Your task to perform on an android device: find snoozed emails in the gmail app Image 0: 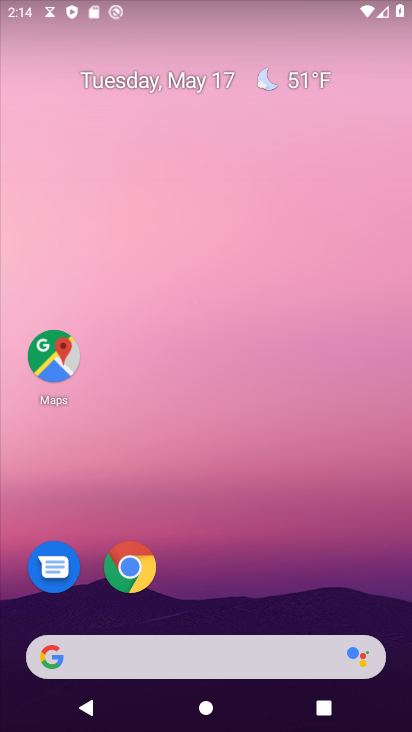
Step 0: drag from (182, 647) to (164, 163)
Your task to perform on an android device: find snoozed emails in the gmail app Image 1: 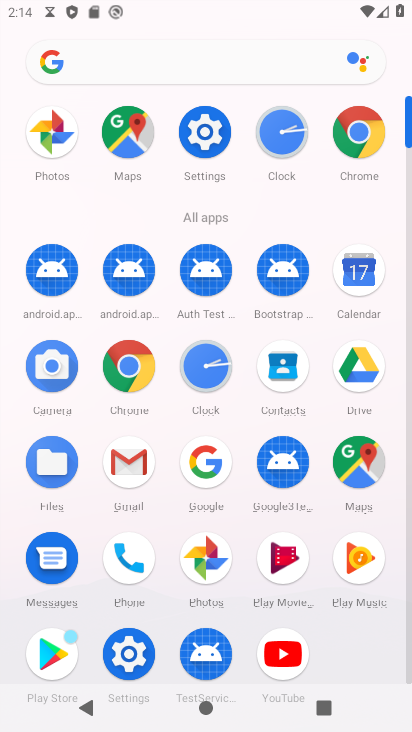
Step 1: click (119, 458)
Your task to perform on an android device: find snoozed emails in the gmail app Image 2: 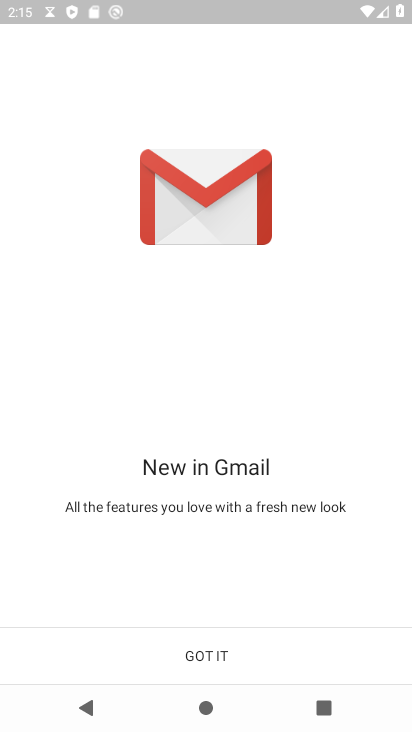
Step 2: click (204, 653)
Your task to perform on an android device: find snoozed emails in the gmail app Image 3: 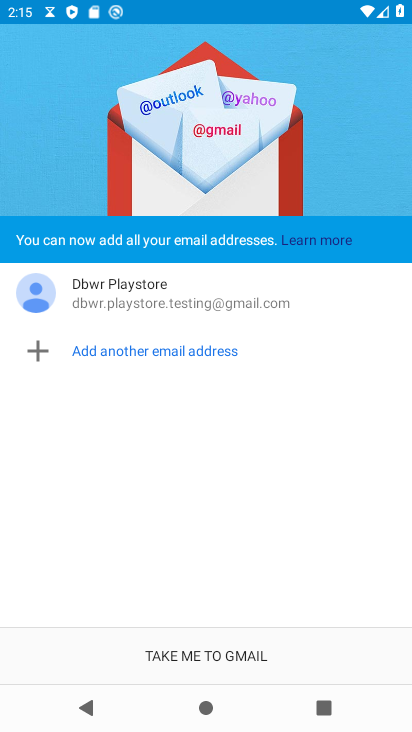
Step 3: click (204, 653)
Your task to perform on an android device: find snoozed emails in the gmail app Image 4: 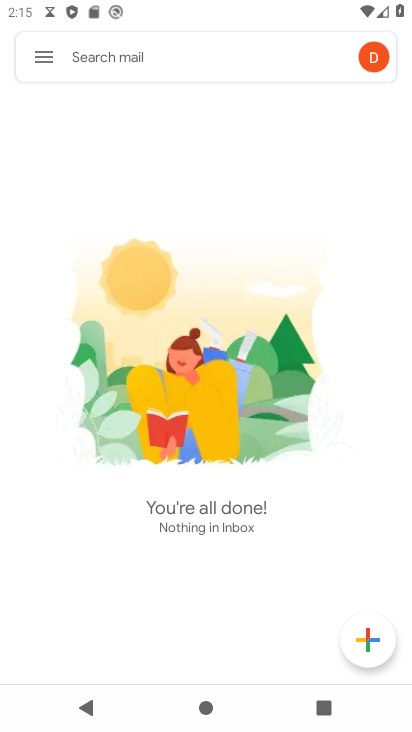
Step 4: click (44, 70)
Your task to perform on an android device: find snoozed emails in the gmail app Image 5: 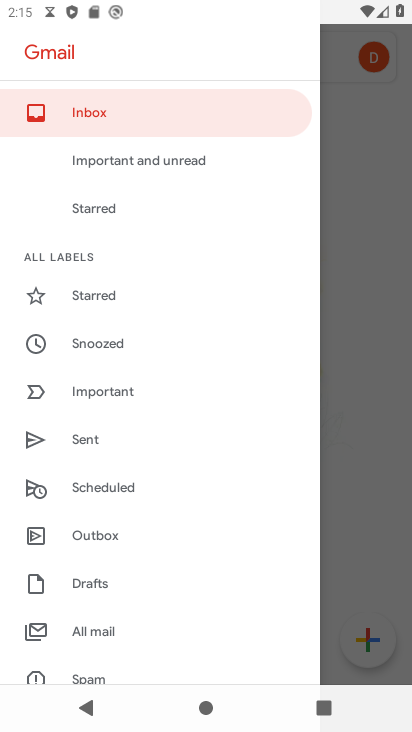
Step 5: click (103, 344)
Your task to perform on an android device: find snoozed emails in the gmail app Image 6: 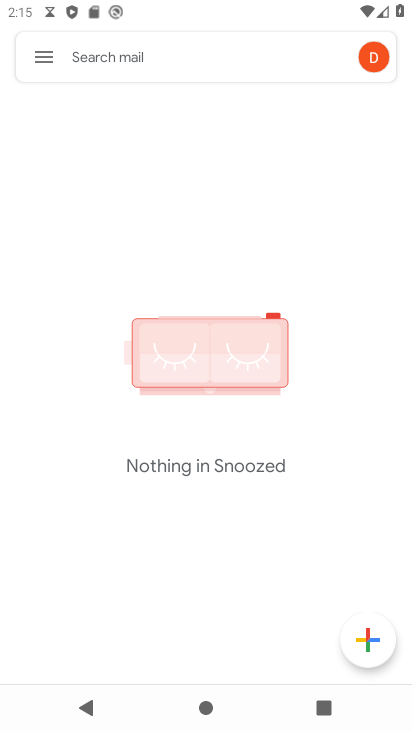
Step 6: task complete